Your task to perform on an android device: change alarm snooze length Image 0: 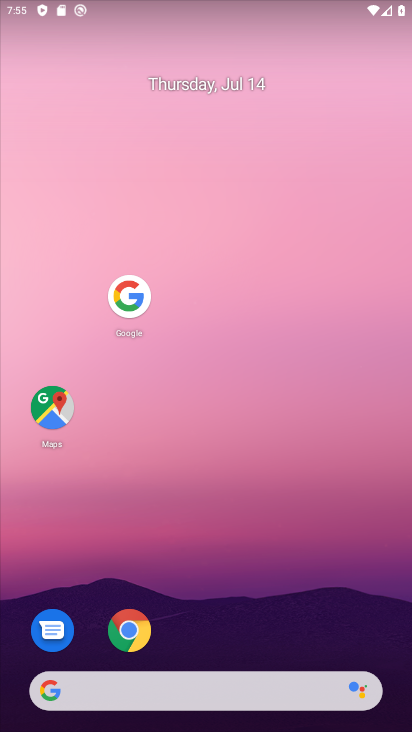
Step 0: drag from (229, 632) to (124, 103)
Your task to perform on an android device: change alarm snooze length Image 1: 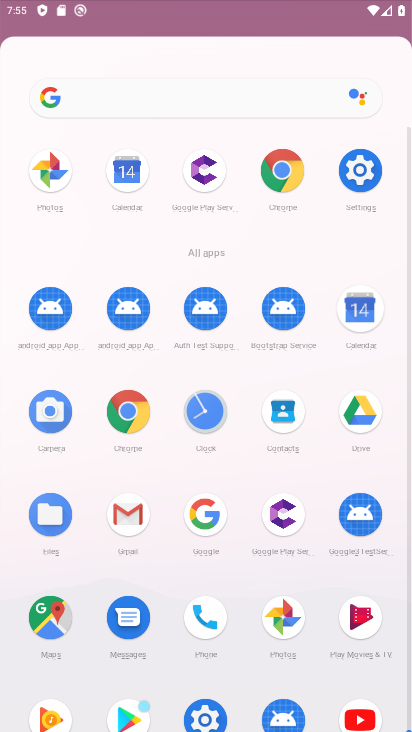
Step 1: drag from (188, 330) to (138, 53)
Your task to perform on an android device: change alarm snooze length Image 2: 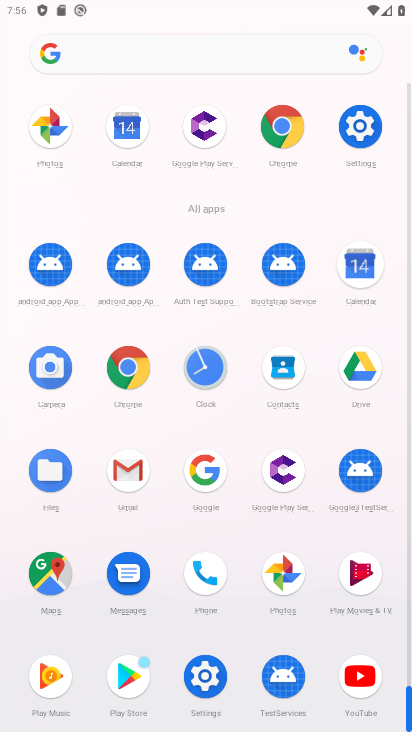
Step 2: click (203, 363)
Your task to perform on an android device: change alarm snooze length Image 3: 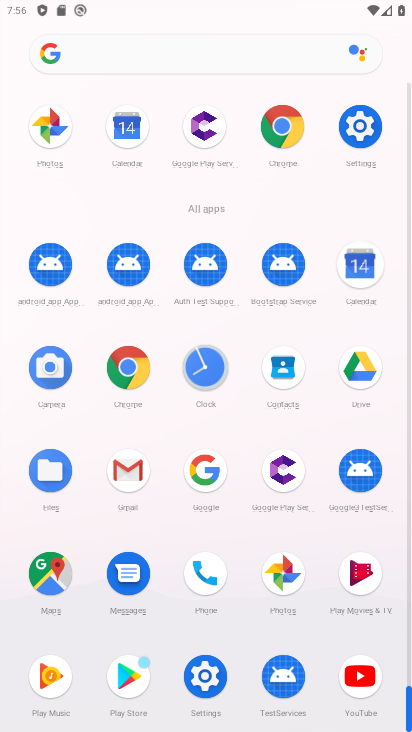
Step 3: click (203, 363)
Your task to perform on an android device: change alarm snooze length Image 4: 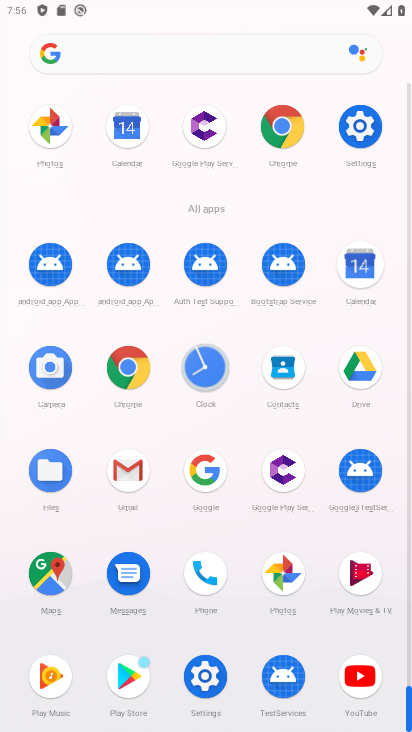
Step 4: click (203, 363)
Your task to perform on an android device: change alarm snooze length Image 5: 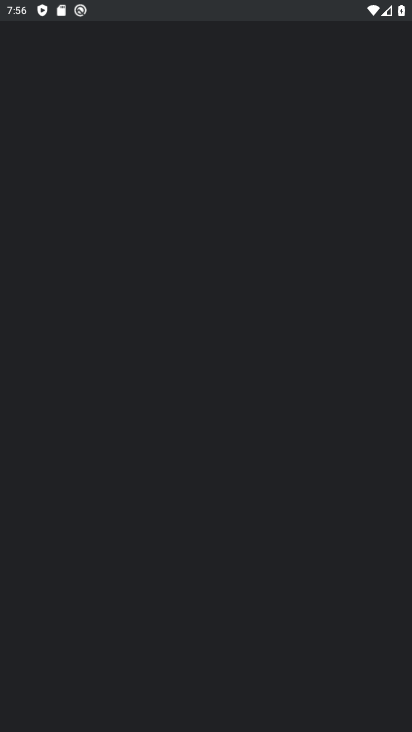
Step 5: click (203, 363)
Your task to perform on an android device: change alarm snooze length Image 6: 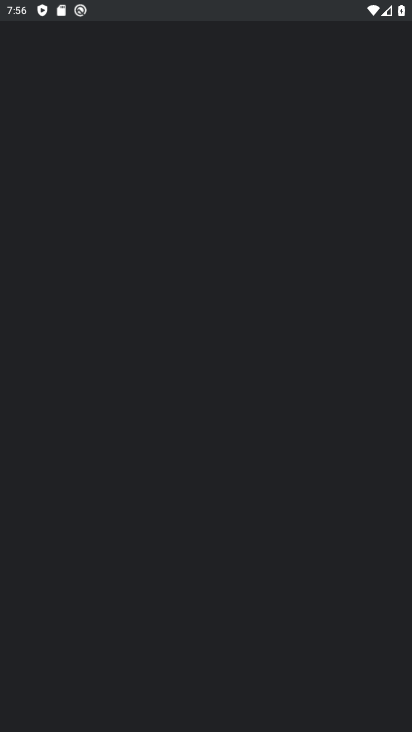
Step 6: click (202, 365)
Your task to perform on an android device: change alarm snooze length Image 7: 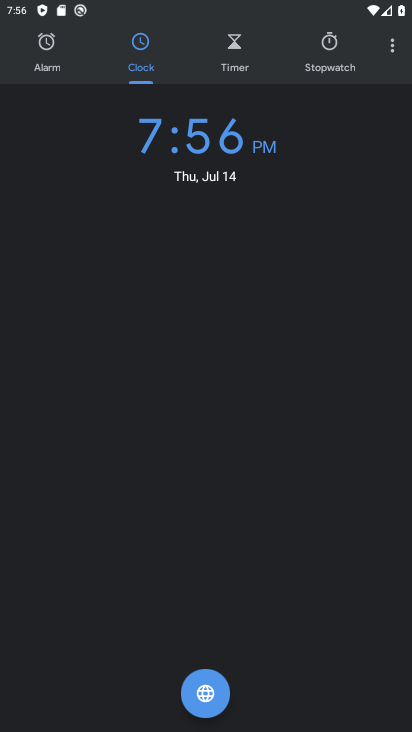
Step 7: click (390, 45)
Your task to perform on an android device: change alarm snooze length Image 8: 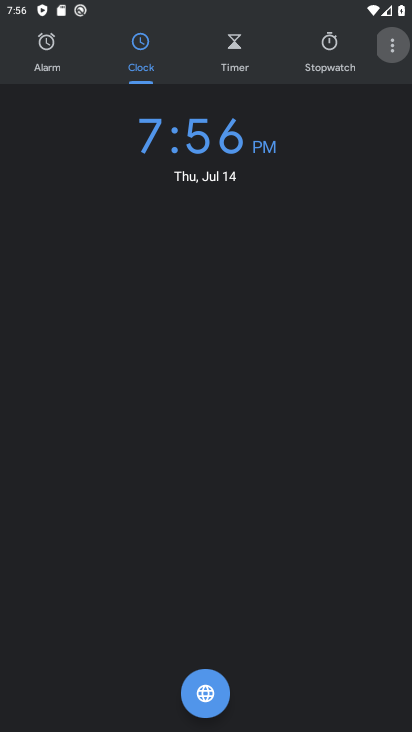
Step 8: click (390, 45)
Your task to perform on an android device: change alarm snooze length Image 9: 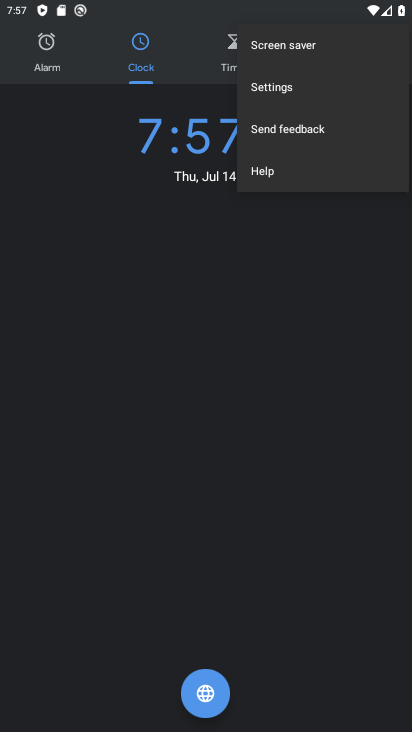
Step 9: click (269, 91)
Your task to perform on an android device: change alarm snooze length Image 10: 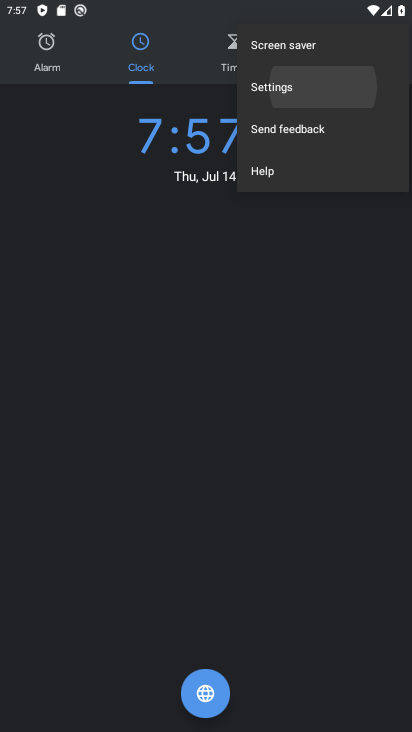
Step 10: click (269, 91)
Your task to perform on an android device: change alarm snooze length Image 11: 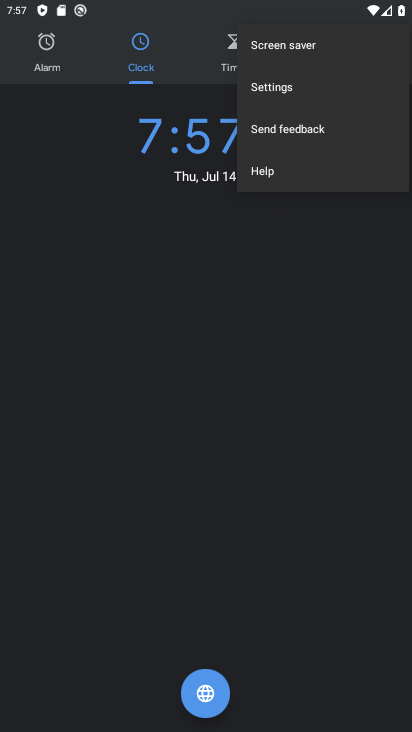
Step 11: click (265, 88)
Your task to perform on an android device: change alarm snooze length Image 12: 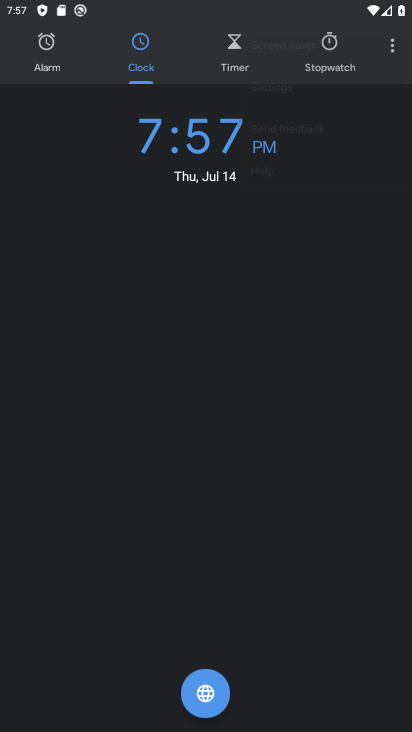
Step 12: click (264, 88)
Your task to perform on an android device: change alarm snooze length Image 13: 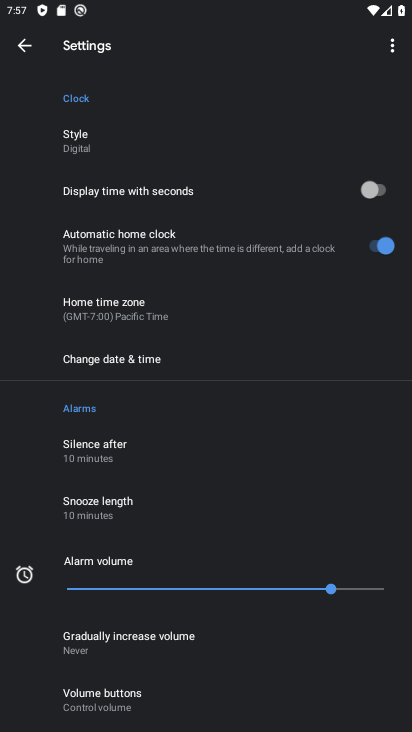
Step 13: click (86, 519)
Your task to perform on an android device: change alarm snooze length Image 14: 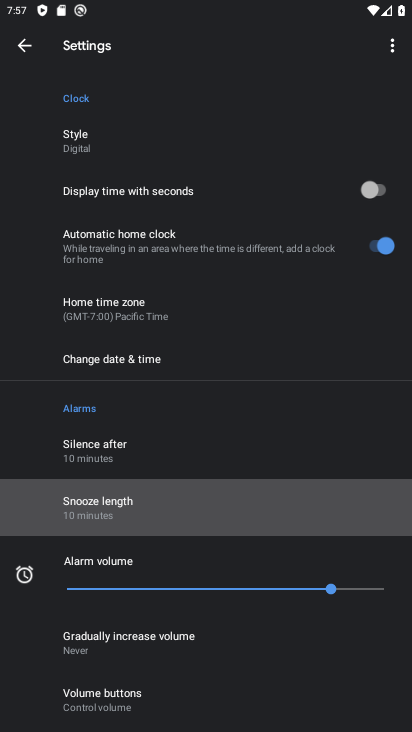
Step 14: click (86, 519)
Your task to perform on an android device: change alarm snooze length Image 15: 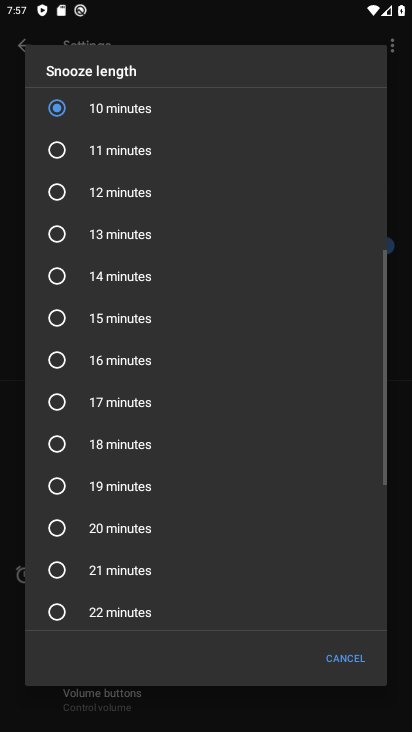
Step 15: click (55, 191)
Your task to perform on an android device: change alarm snooze length Image 16: 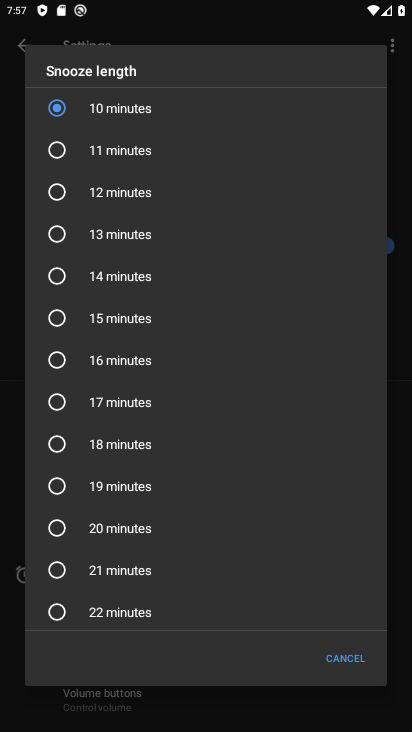
Step 16: click (56, 193)
Your task to perform on an android device: change alarm snooze length Image 17: 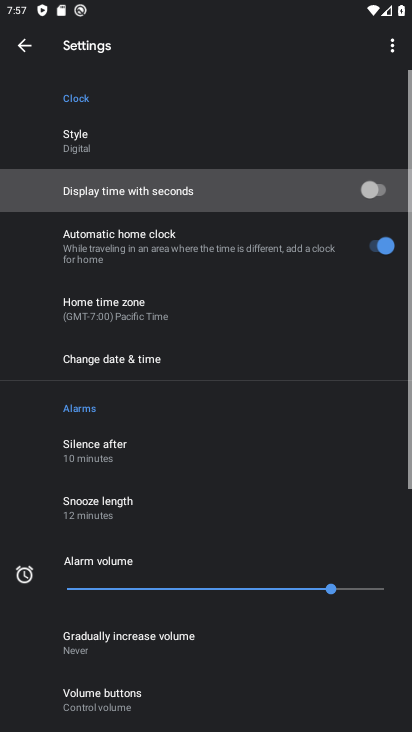
Step 17: click (56, 194)
Your task to perform on an android device: change alarm snooze length Image 18: 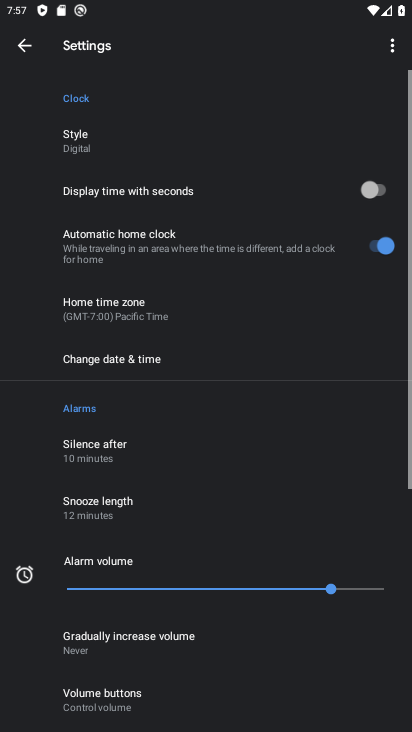
Step 18: task complete